Your task to perform on an android device: Go to ESPN.com Image 0: 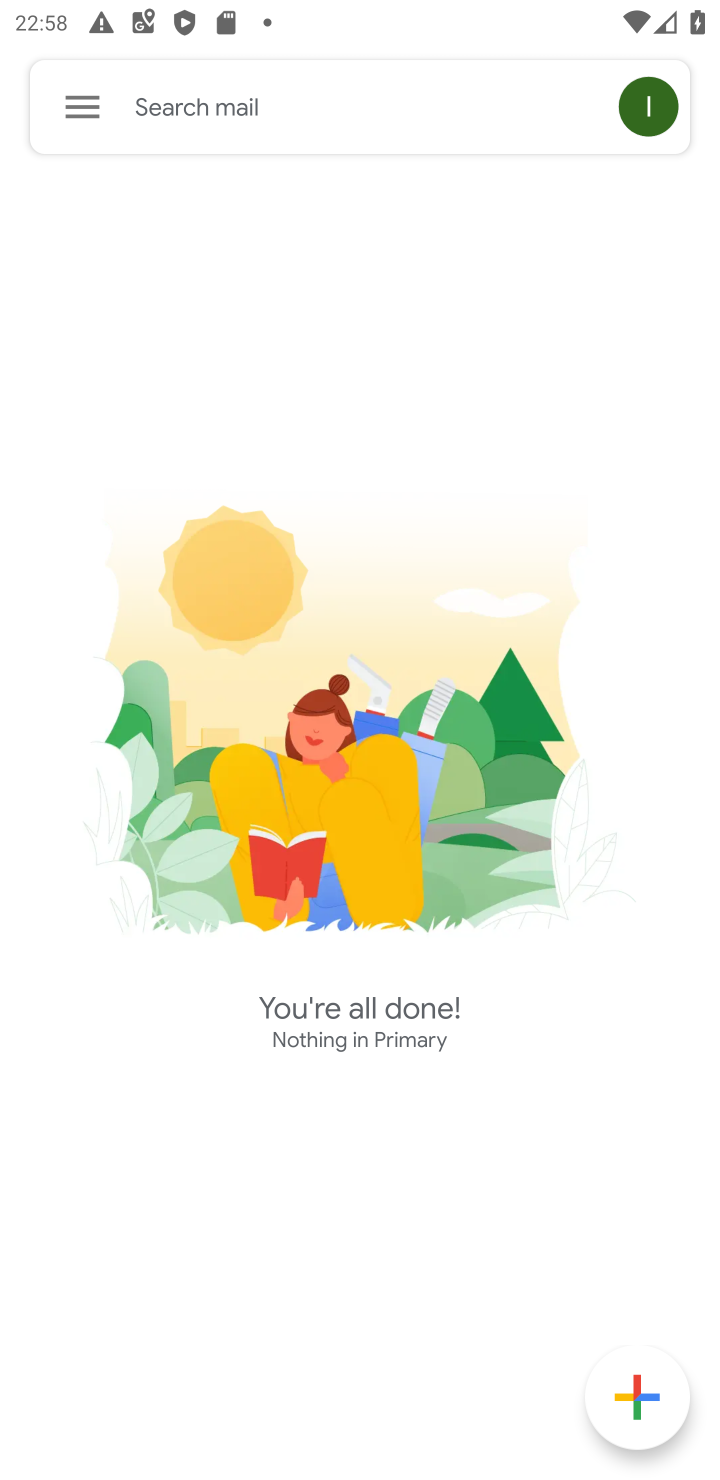
Step 0: press home button
Your task to perform on an android device: Go to ESPN.com Image 1: 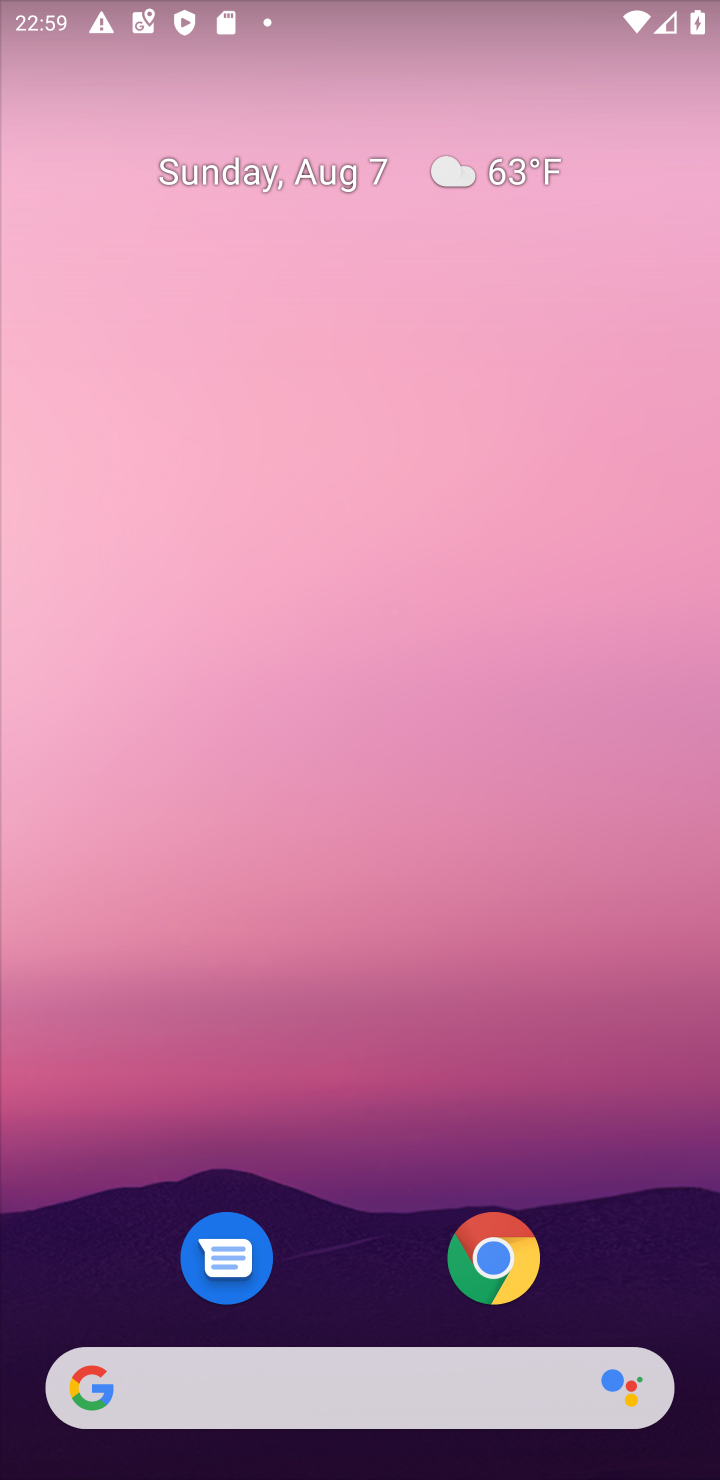
Step 1: drag from (351, 1274) to (393, 239)
Your task to perform on an android device: Go to ESPN.com Image 2: 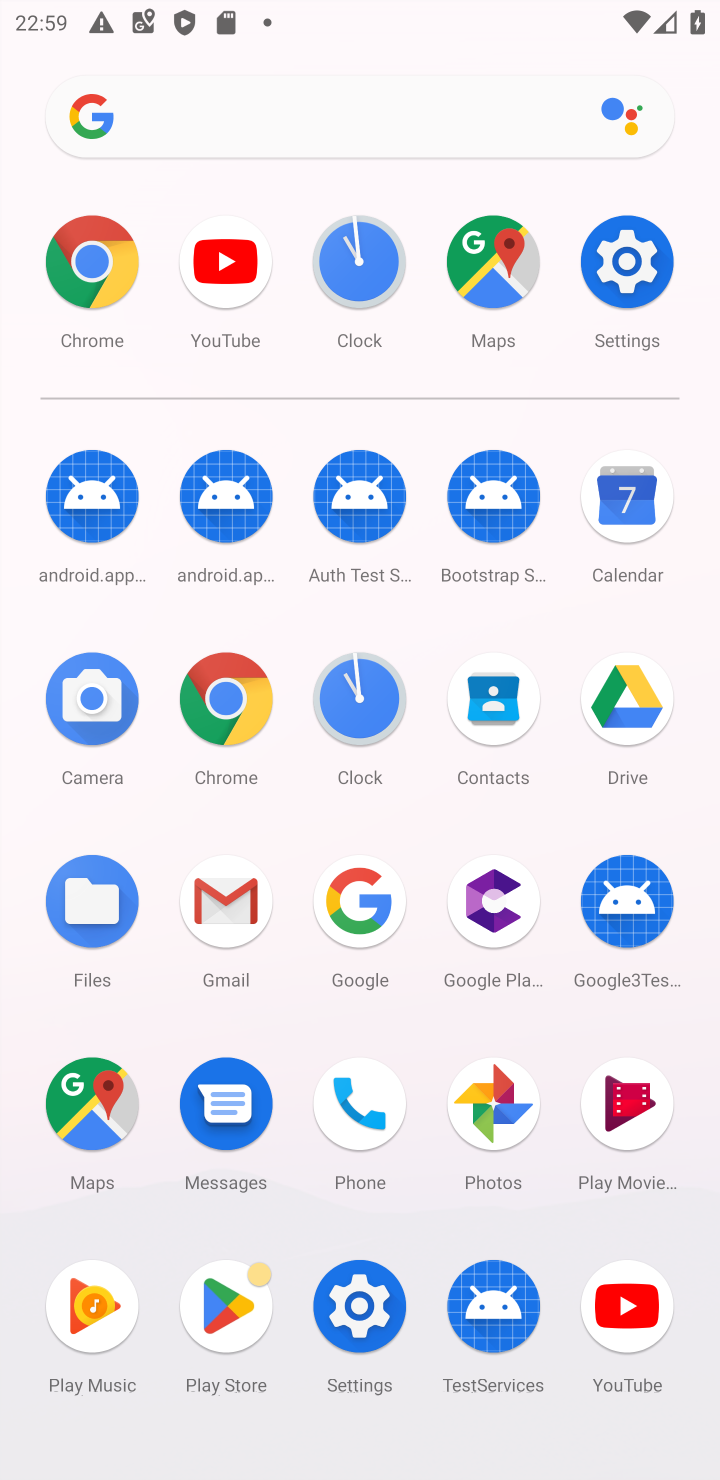
Step 2: click (128, 269)
Your task to perform on an android device: Go to ESPN.com Image 3: 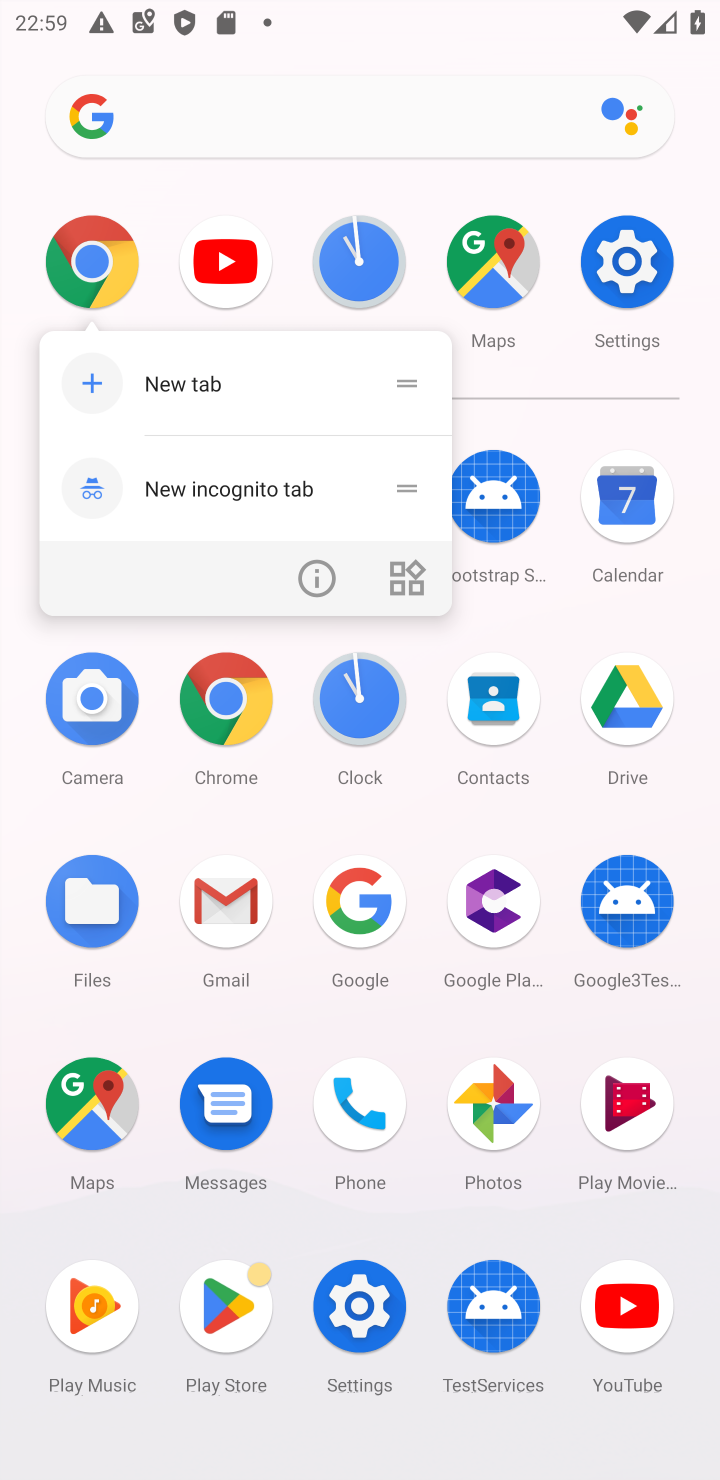
Step 3: click (128, 269)
Your task to perform on an android device: Go to ESPN.com Image 4: 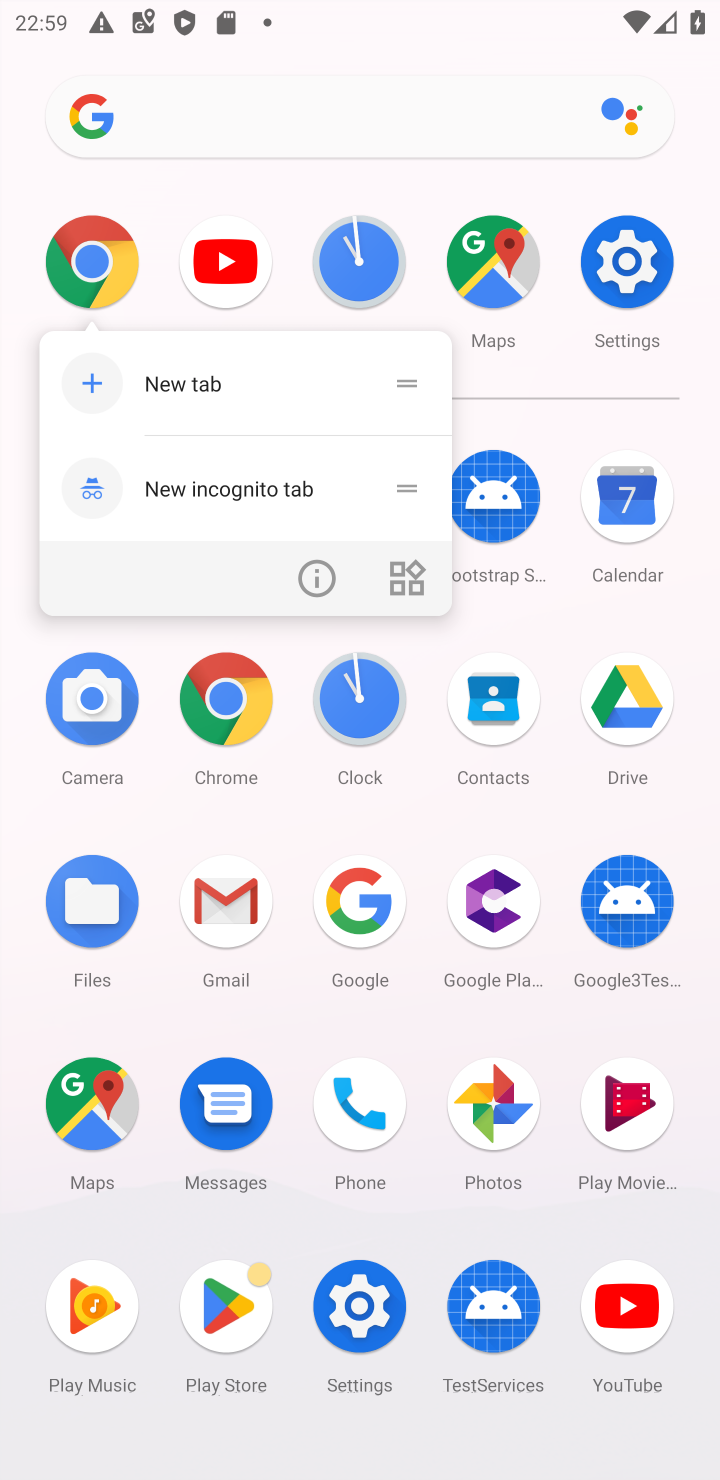
Step 4: click (104, 258)
Your task to perform on an android device: Go to ESPN.com Image 5: 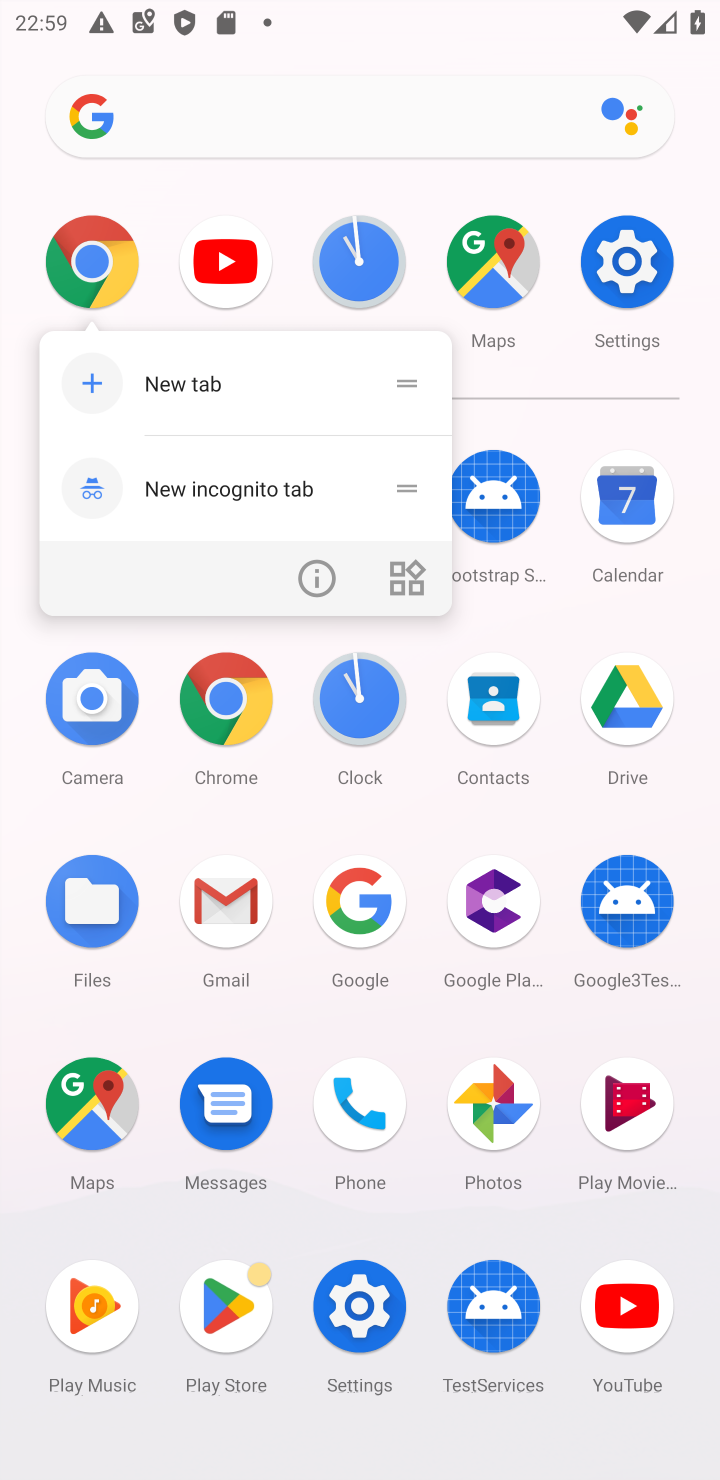
Step 5: click (104, 258)
Your task to perform on an android device: Go to ESPN.com Image 6: 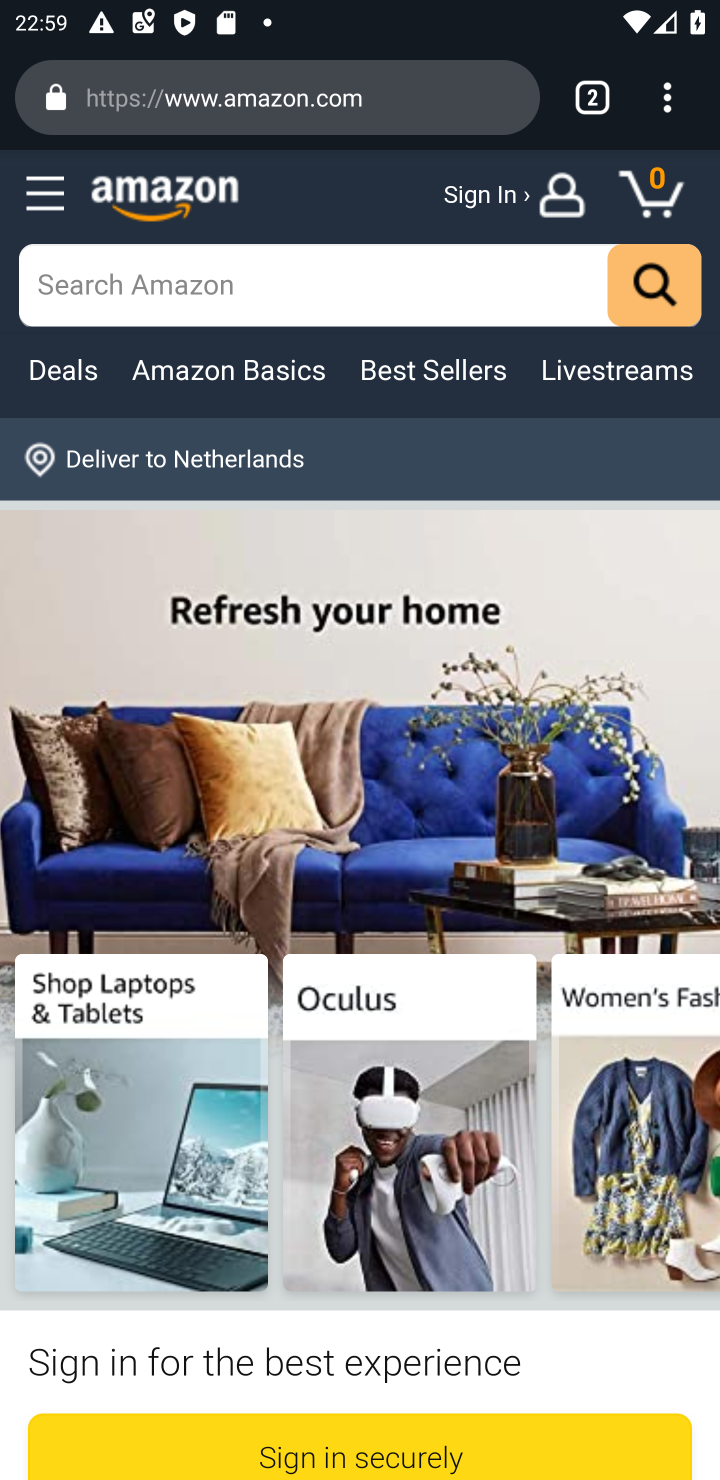
Step 6: click (262, 101)
Your task to perform on an android device: Go to ESPN.com Image 7: 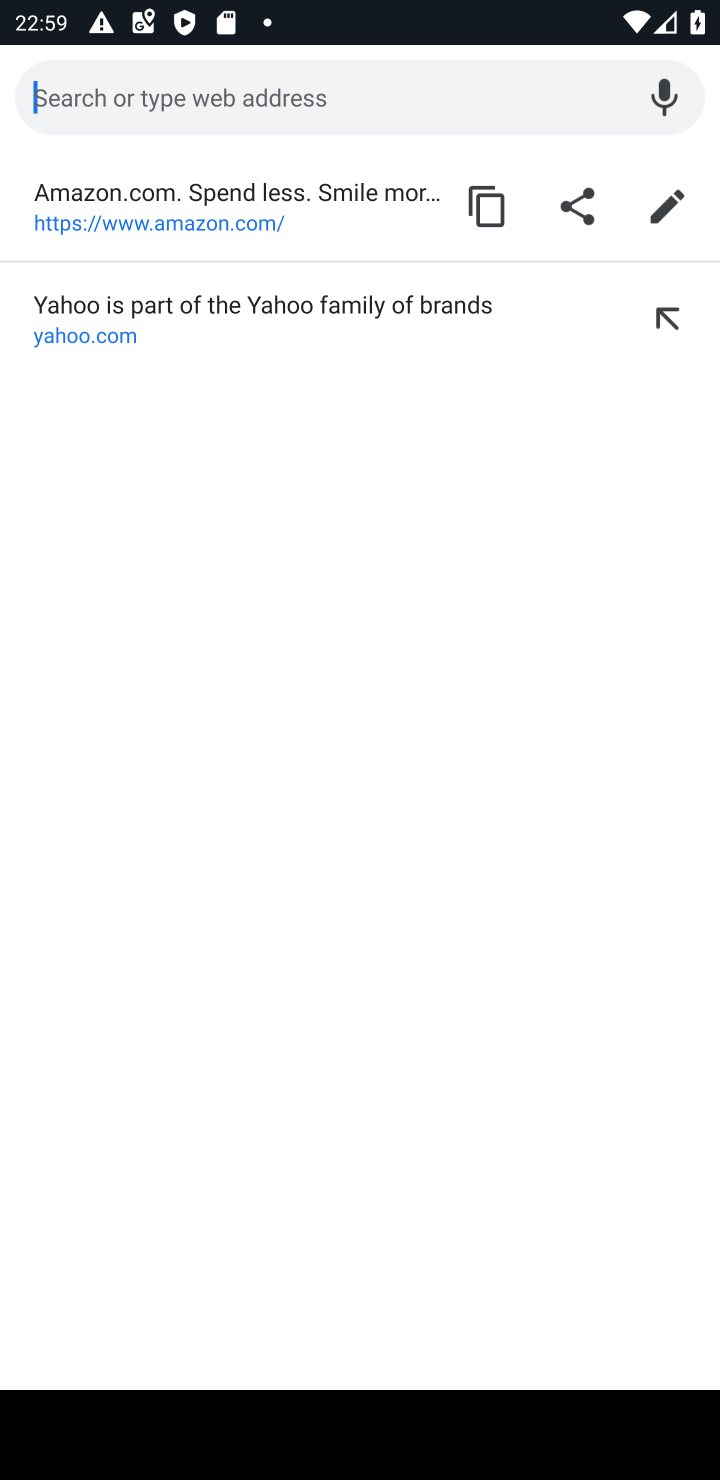
Step 7: type " ESPN.com"
Your task to perform on an android device: Go to ESPN.com Image 8: 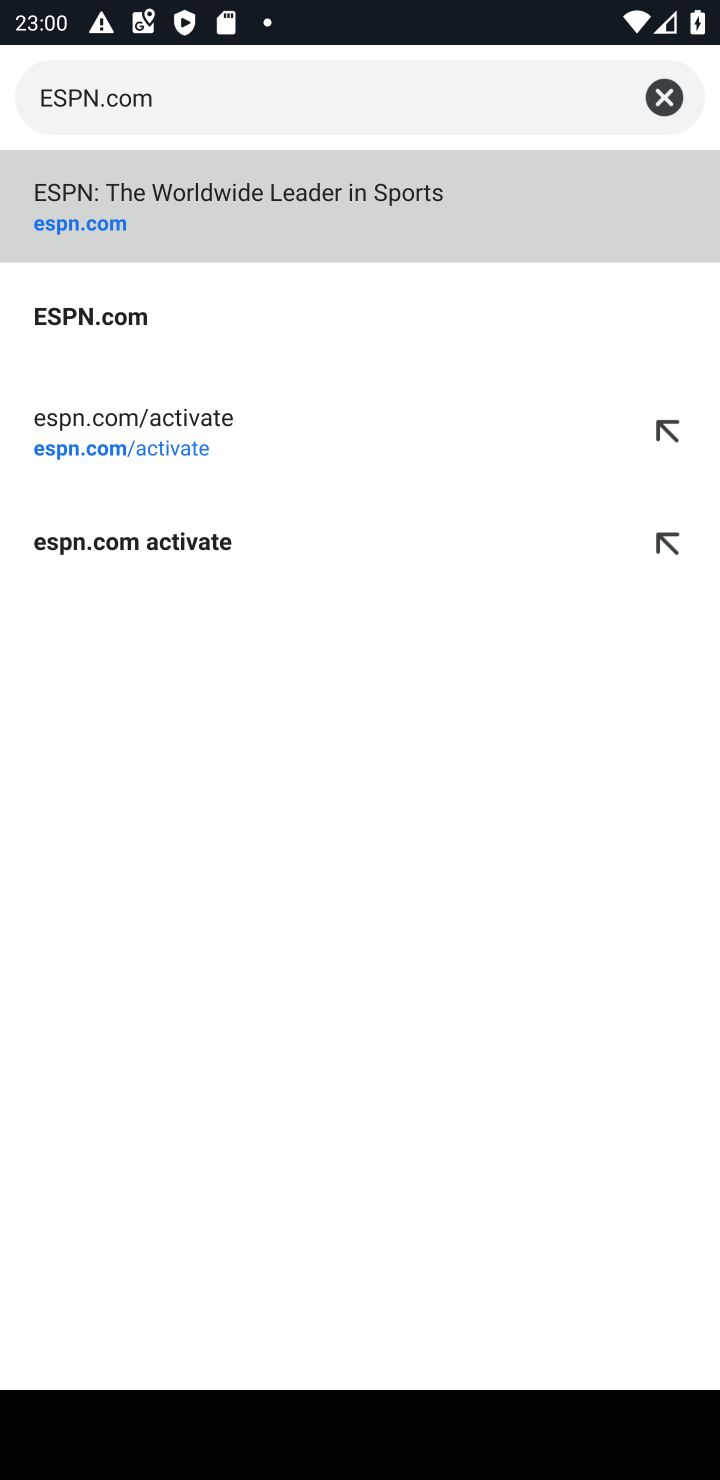
Step 8: click (41, 219)
Your task to perform on an android device: Go to ESPN.com Image 9: 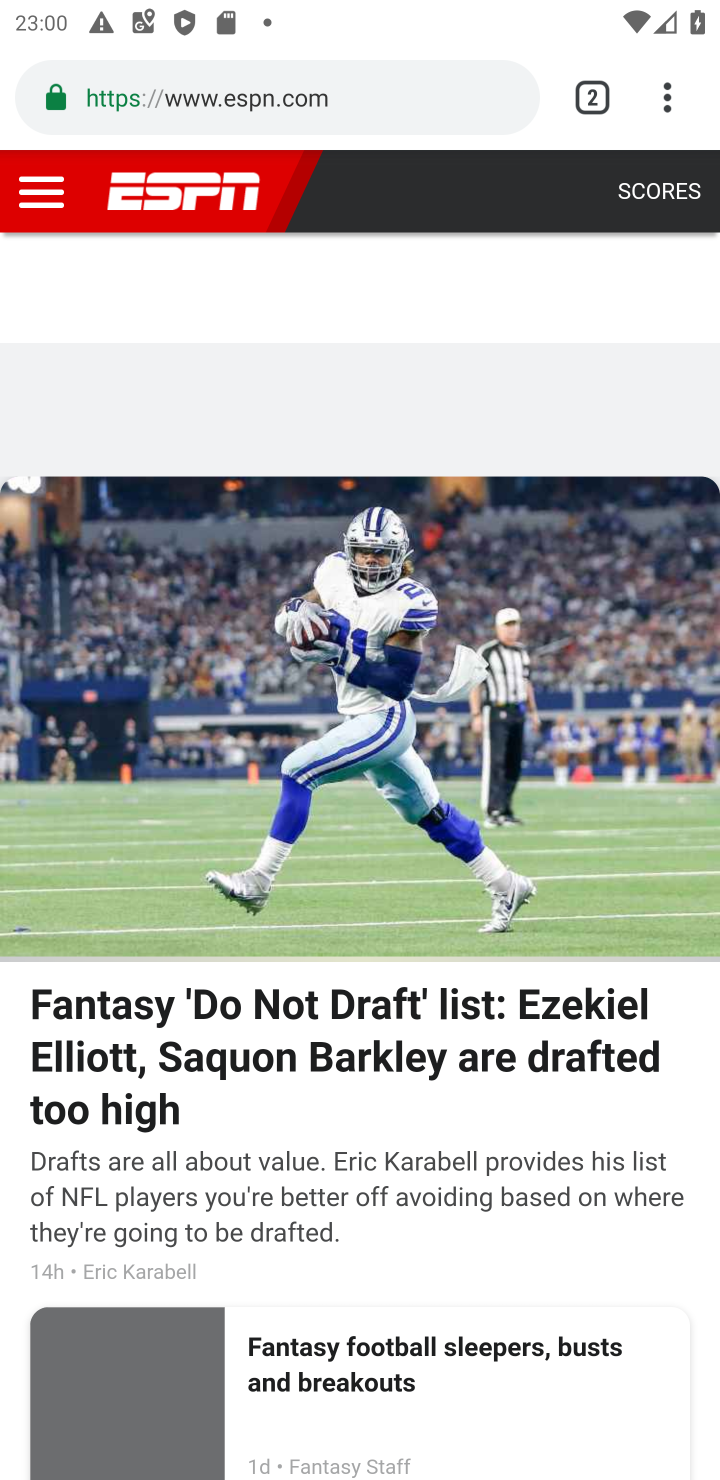
Step 9: task complete